Your task to perform on an android device: turn off smart reply in the gmail app Image 0: 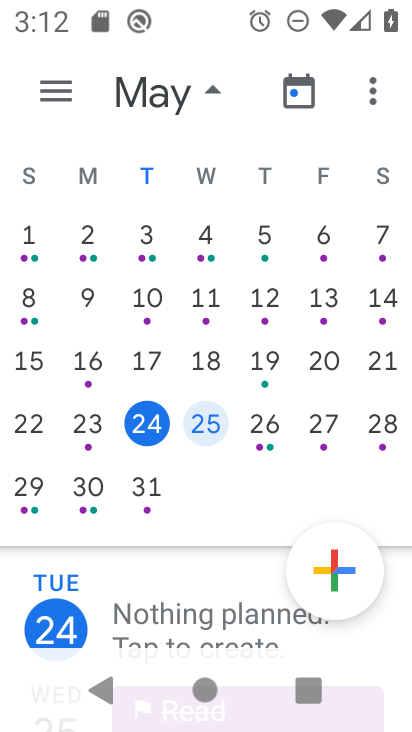
Step 0: press home button
Your task to perform on an android device: turn off smart reply in the gmail app Image 1: 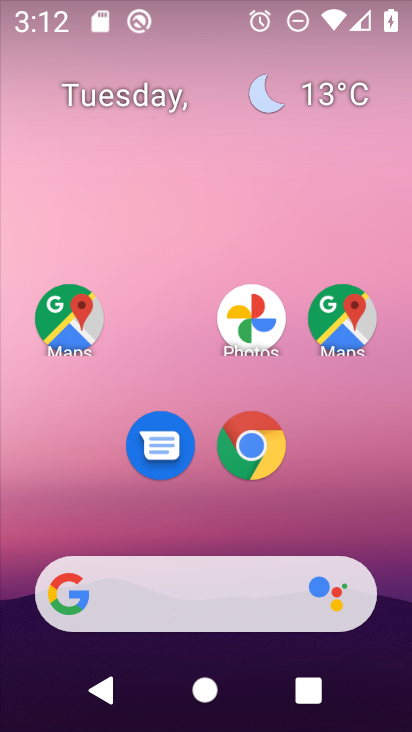
Step 1: drag from (393, 553) to (383, 196)
Your task to perform on an android device: turn off smart reply in the gmail app Image 2: 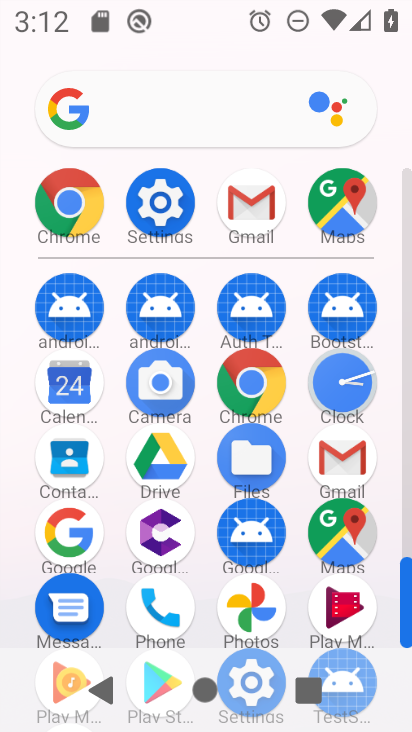
Step 2: click (355, 468)
Your task to perform on an android device: turn off smart reply in the gmail app Image 3: 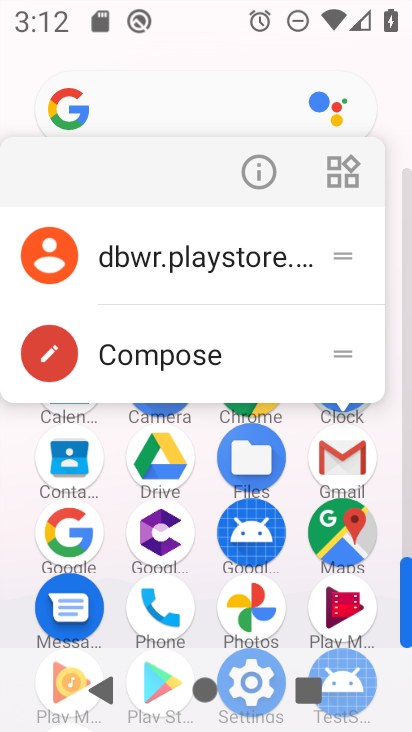
Step 3: click (355, 468)
Your task to perform on an android device: turn off smart reply in the gmail app Image 4: 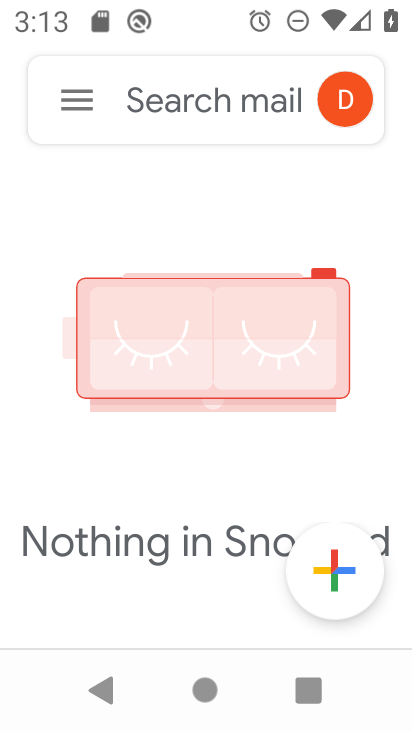
Step 4: click (74, 109)
Your task to perform on an android device: turn off smart reply in the gmail app Image 5: 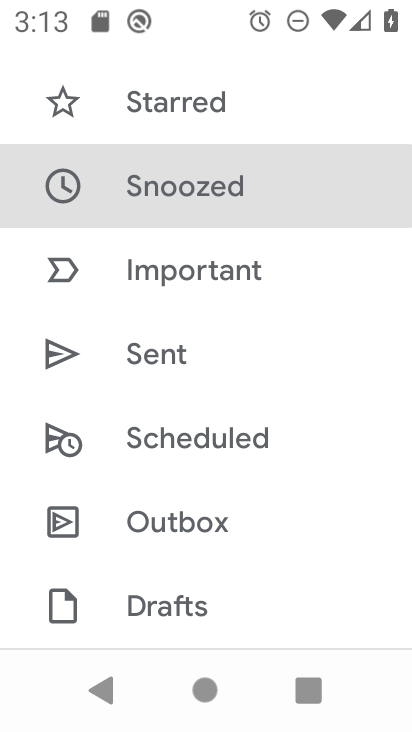
Step 5: drag from (353, 490) to (362, 425)
Your task to perform on an android device: turn off smart reply in the gmail app Image 6: 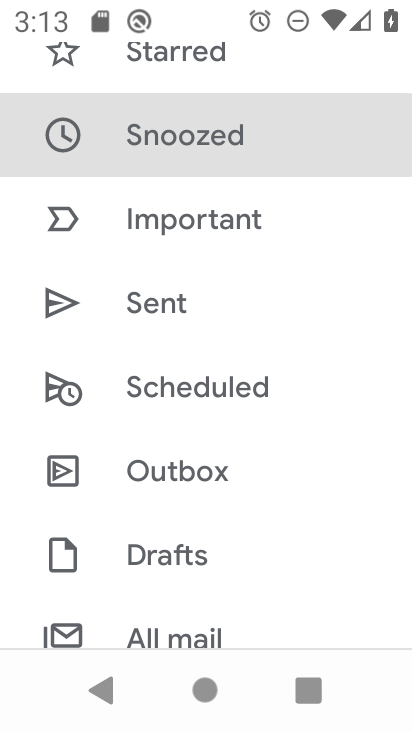
Step 6: drag from (358, 563) to (367, 460)
Your task to perform on an android device: turn off smart reply in the gmail app Image 7: 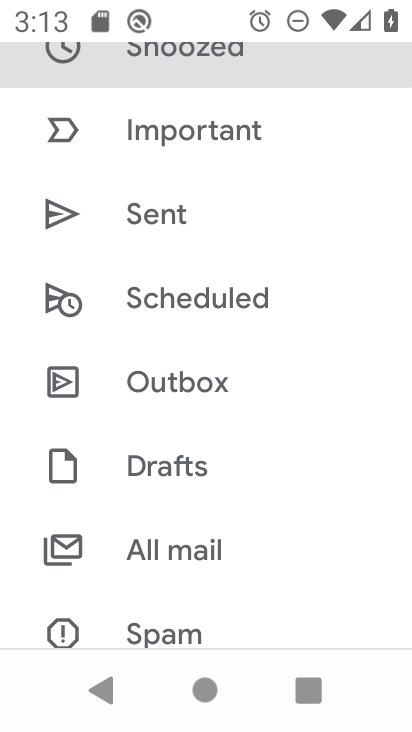
Step 7: drag from (341, 556) to (338, 444)
Your task to perform on an android device: turn off smart reply in the gmail app Image 8: 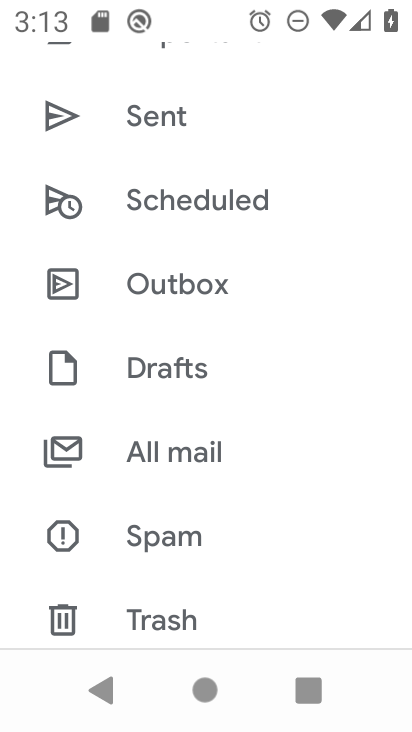
Step 8: drag from (328, 560) to (326, 452)
Your task to perform on an android device: turn off smart reply in the gmail app Image 9: 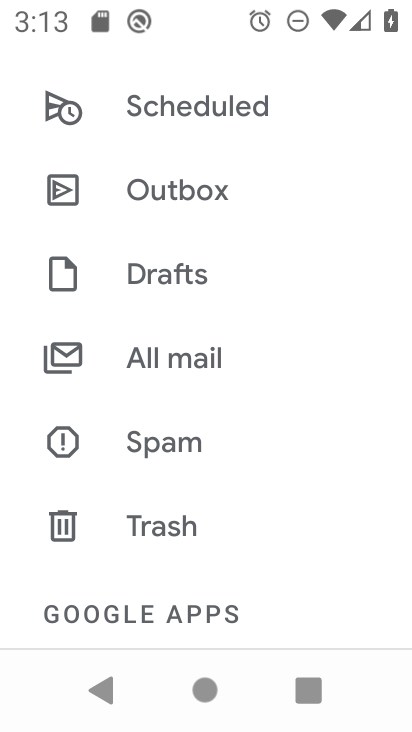
Step 9: drag from (335, 578) to (341, 457)
Your task to perform on an android device: turn off smart reply in the gmail app Image 10: 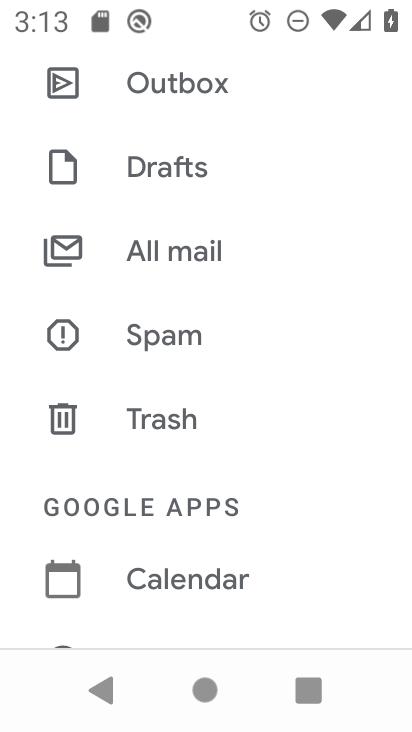
Step 10: drag from (339, 528) to (348, 427)
Your task to perform on an android device: turn off smart reply in the gmail app Image 11: 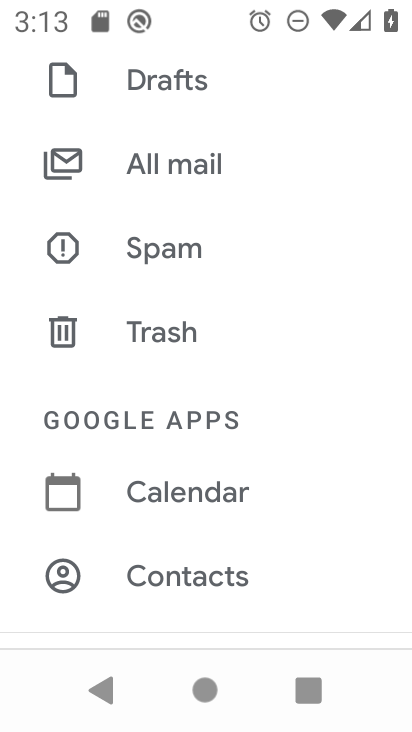
Step 11: drag from (341, 575) to (347, 494)
Your task to perform on an android device: turn off smart reply in the gmail app Image 12: 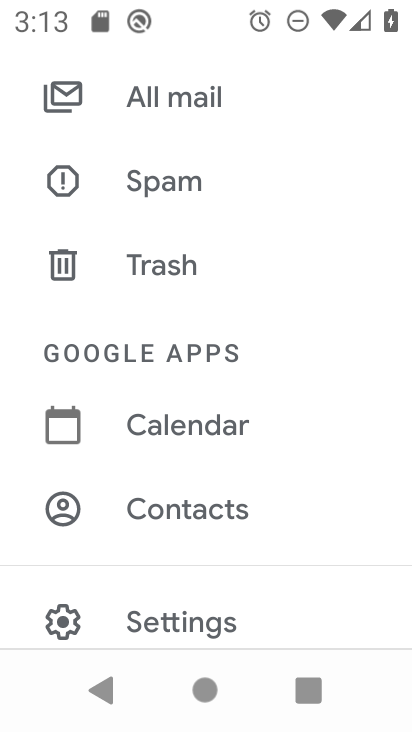
Step 12: drag from (343, 575) to (353, 483)
Your task to perform on an android device: turn off smart reply in the gmail app Image 13: 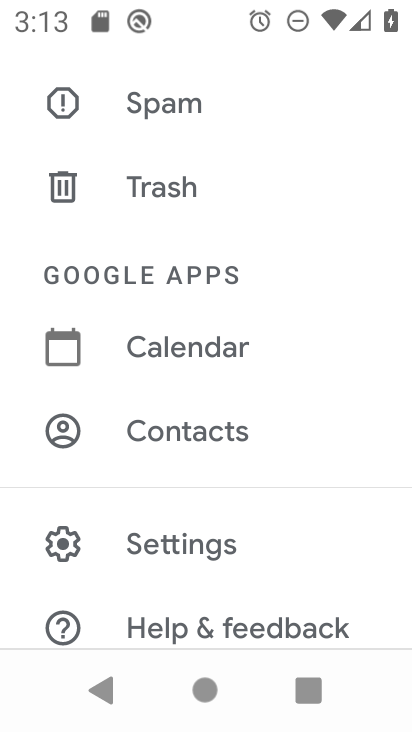
Step 13: drag from (342, 565) to (353, 484)
Your task to perform on an android device: turn off smart reply in the gmail app Image 14: 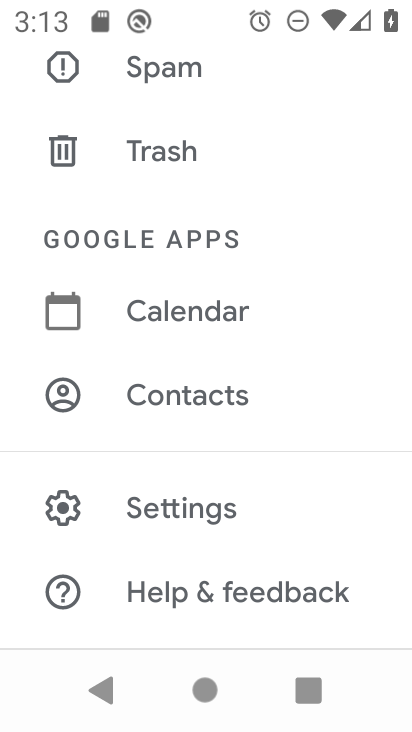
Step 14: click (259, 524)
Your task to perform on an android device: turn off smart reply in the gmail app Image 15: 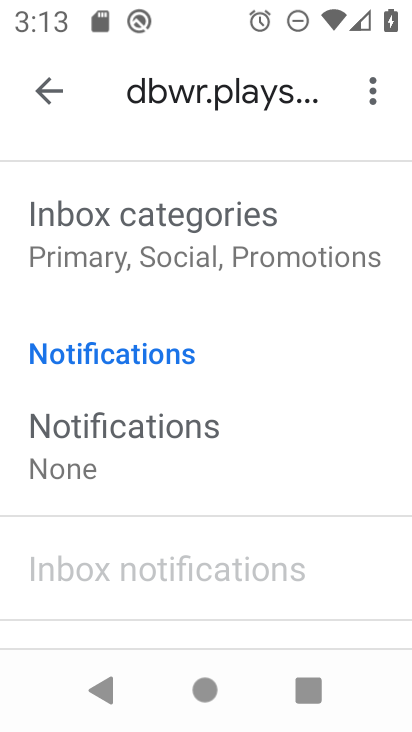
Step 15: task complete